Your task to perform on an android device: What's on my calendar tomorrow? Image 0: 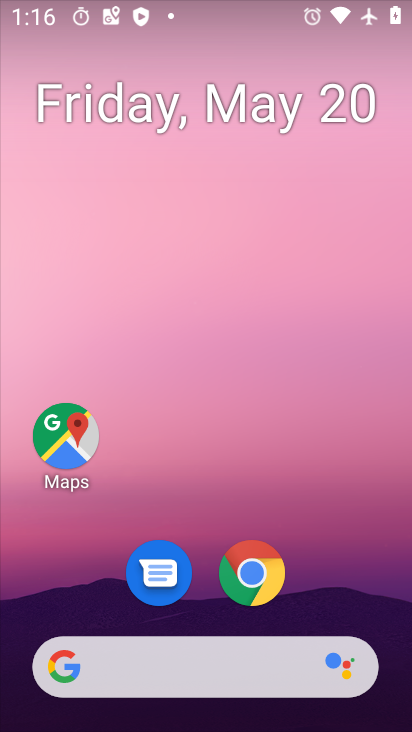
Step 0: drag from (338, 515) to (343, 77)
Your task to perform on an android device: What's on my calendar tomorrow? Image 1: 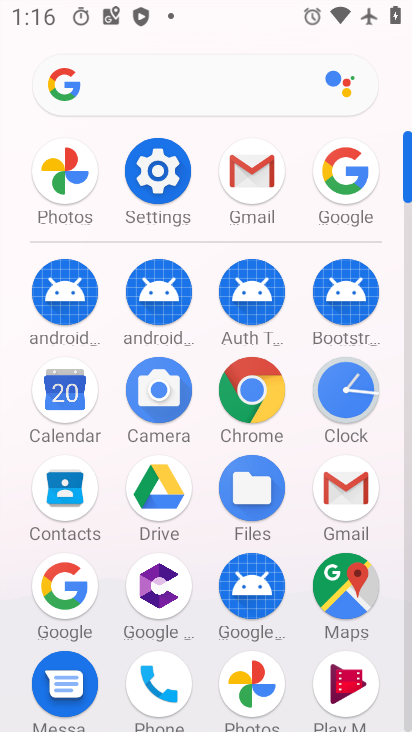
Step 1: click (62, 389)
Your task to perform on an android device: What's on my calendar tomorrow? Image 2: 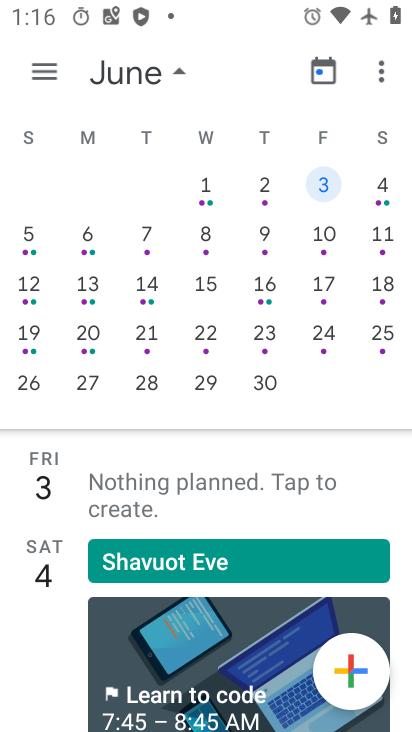
Step 2: drag from (33, 402) to (409, 340)
Your task to perform on an android device: What's on my calendar tomorrow? Image 3: 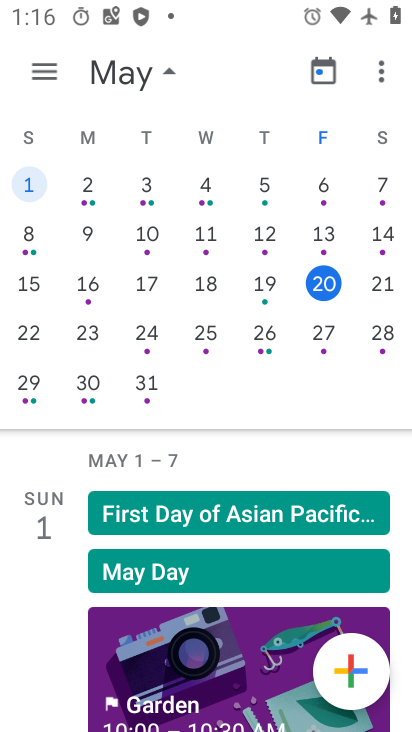
Step 3: click (378, 283)
Your task to perform on an android device: What's on my calendar tomorrow? Image 4: 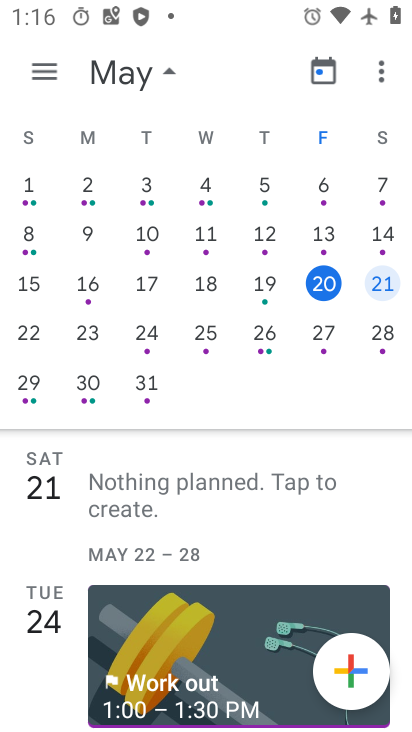
Step 4: task complete